Your task to perform on an android device: open device folders in google photos Image 0: 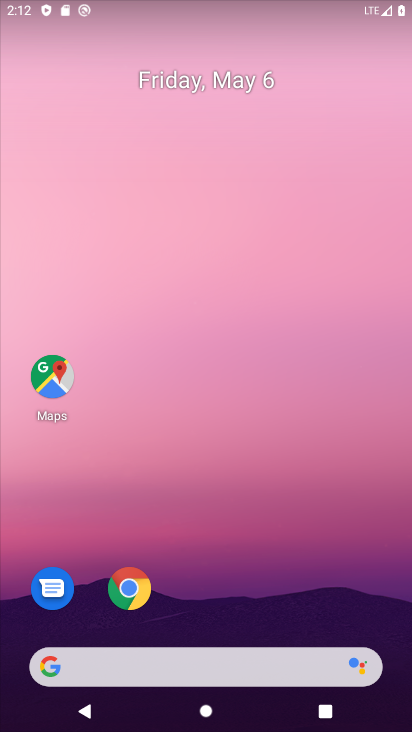
Step 0: drag from (309, 558) to (366, 133)
Your task to perform on an android device: open device folders in google photos Image 1: 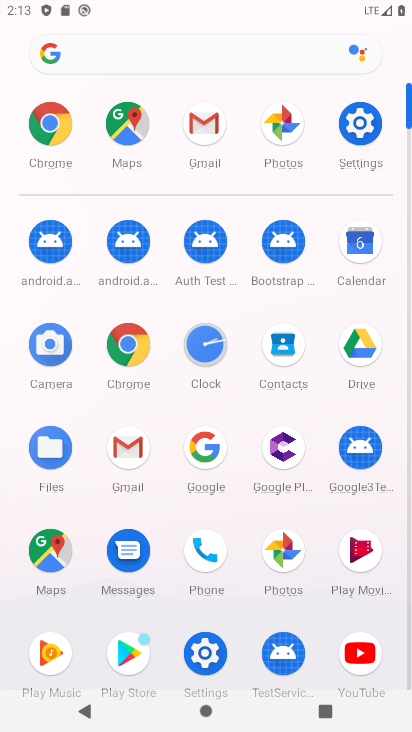
Step 1: click (283, 560)
Your task to perform on an android device: open device folders in google photos Image 2: 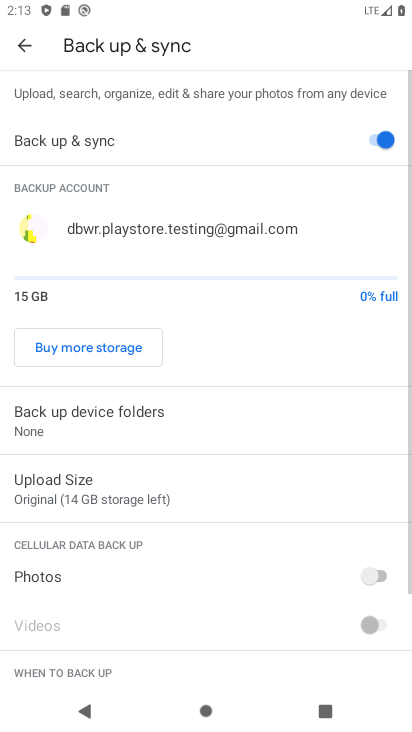
Step 2: click (28, 54)
Your task to perform on an android device: open device folders in google photos Image 3: 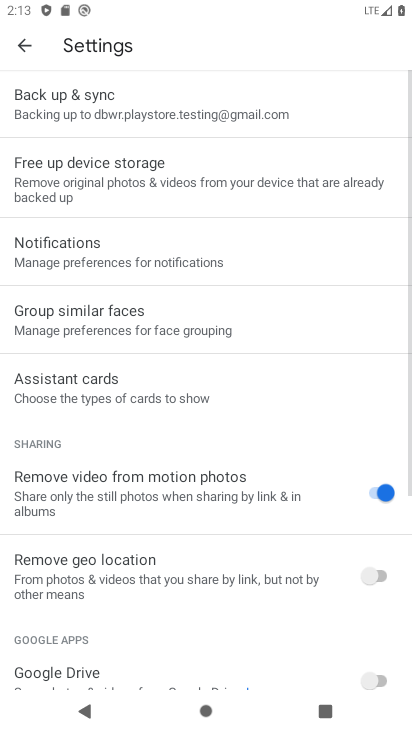
Step 3: click (28, 54)
Your task to perform on an android device: open device folders in google photos Image 4: 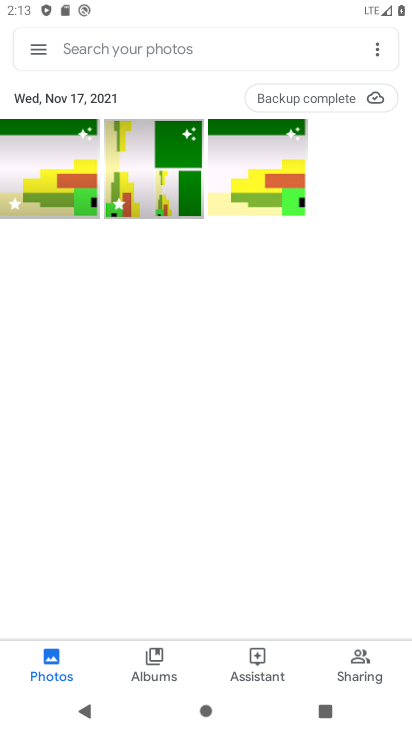
Step 4: click (27, 53)
Your task to perform on an android device: open device folders in google photos Image 5: 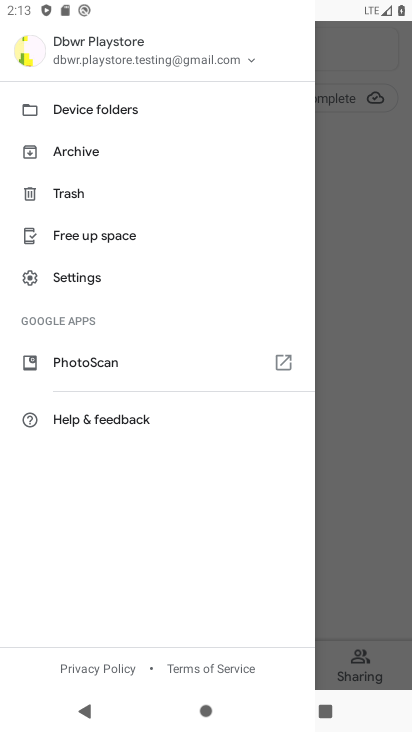
Step 5: click (71, 114)
Your task to perform on an android device: open device folders in google photos Image 6: 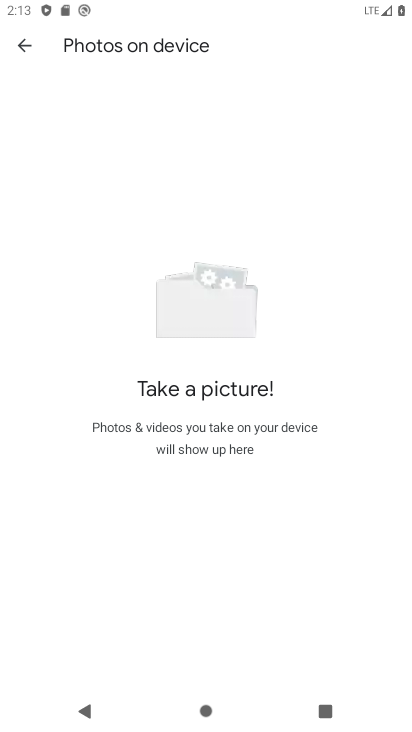
Step 6: task complete